Your task to perform on an android device: turn on the 12-hour format for clock Image 0: 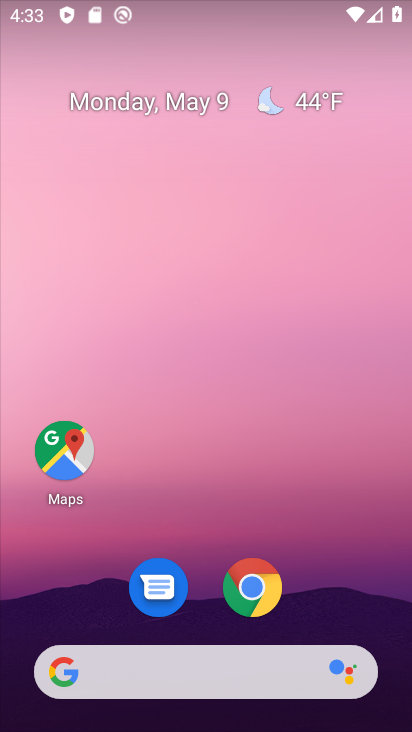
Step 0: drag from (190, 613) to (184, 97)
Your task to perform on an android device: turn on the 12-hour format for clock Image 1: 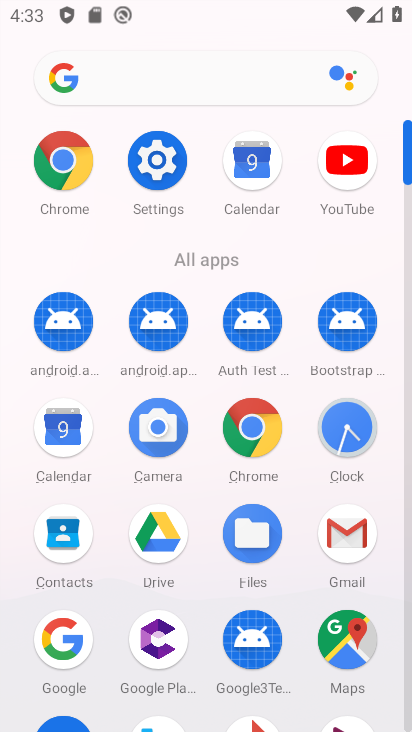
Step 1: click (349, 417)
Your task to perform on an android device: turn on the 12-hour format for clock Image 2: 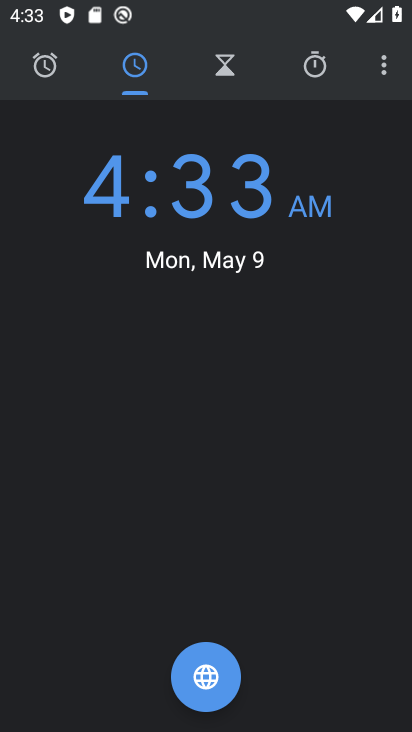
Step 2: click (370, 62)
Your task to perform on an android device: turn on the 12-hour format for clock Image 3: 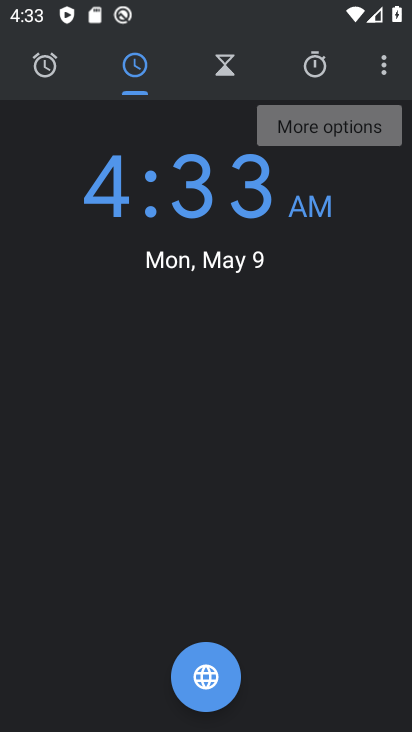
Step 3: click (377, 73)
Your task to perform on an android device: turn on the 12-hour format for clock Image 4: 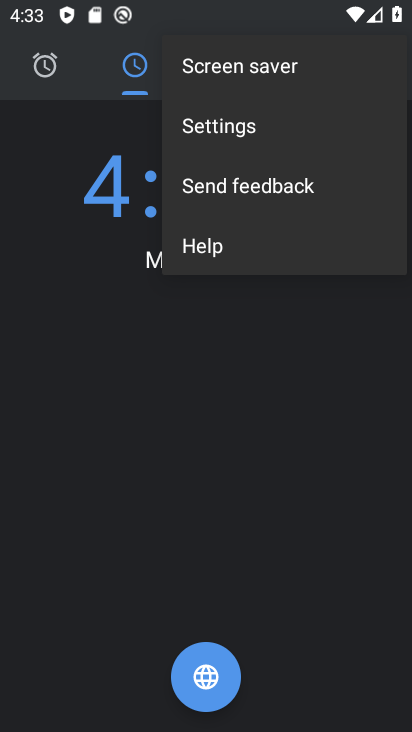
Step 4: click (237, 111)
Your task to perform on an android device: turn on the 12-hour format for clock Image 5: 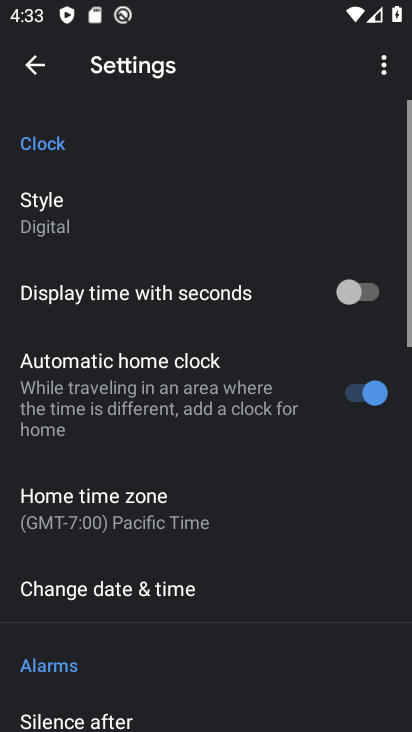
Step 5: drag from (247, 597) to (258, 380)
Your task to perform on an android device: turn on the 12-hour format for clock Image 6: 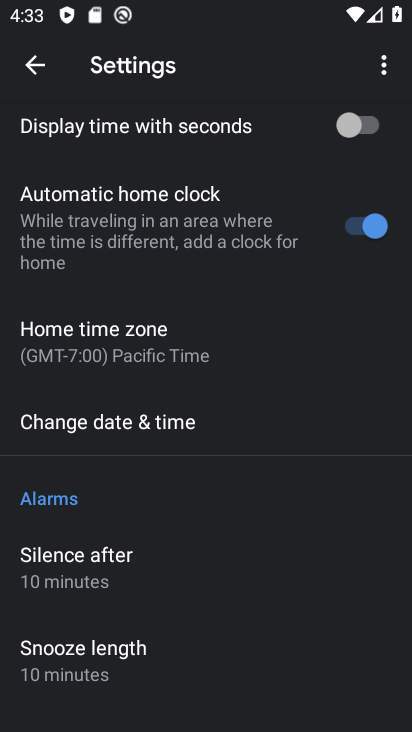
Step 6: click (191, 427)
Your task to perform on an android device: turn on the 12-hour format for clock Image 7: 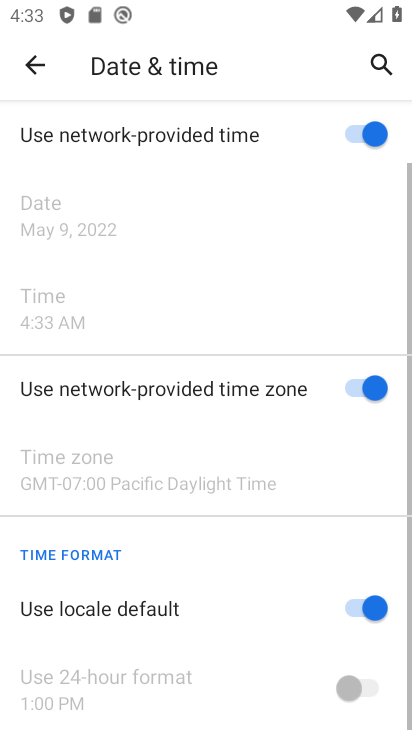
Step 7: task complete